Your task to perform on an android device: Open Yahoo.com Image 0: 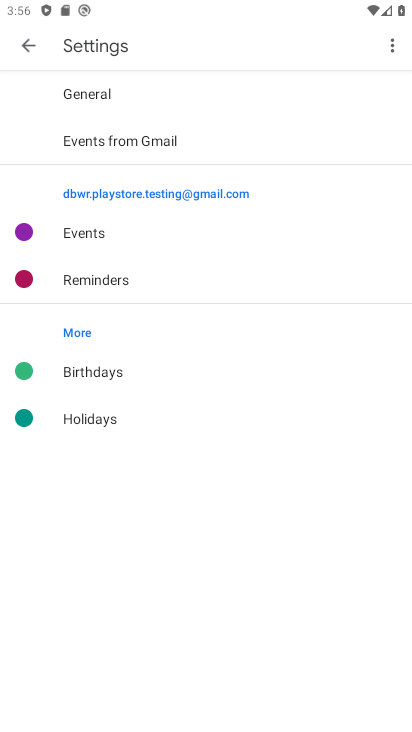
Step 0: press home button
Your task to perform on an android device: Open Yahoo.com Image 1: 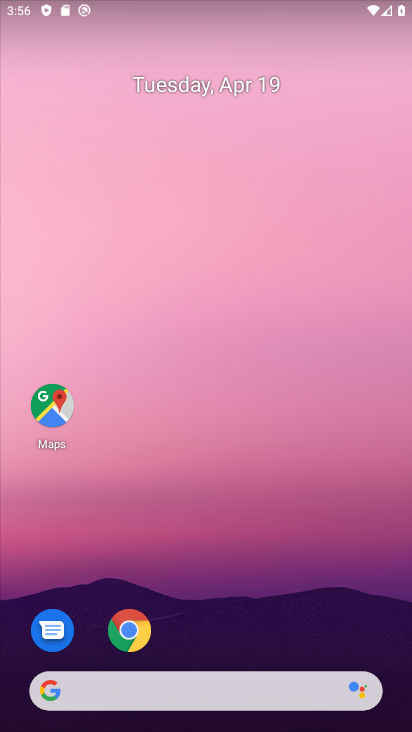
Step 1: click (208, 691)
Your task to perform on an android device: Open Yahoo.com Image 2: 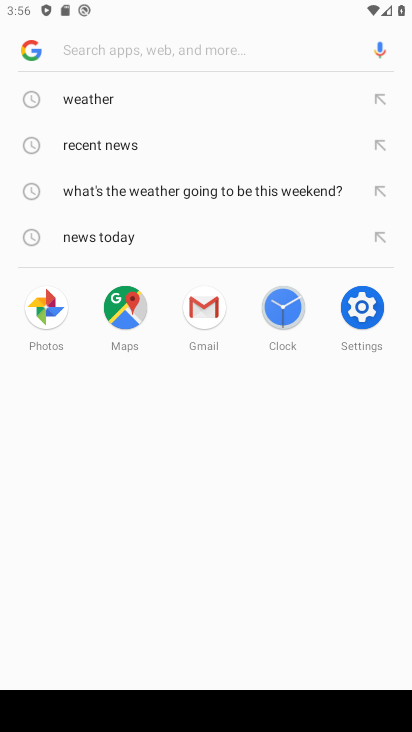
Step 2: click (140, 59)
Your task to perform on an android device: Open Yahoo.com Image 3: 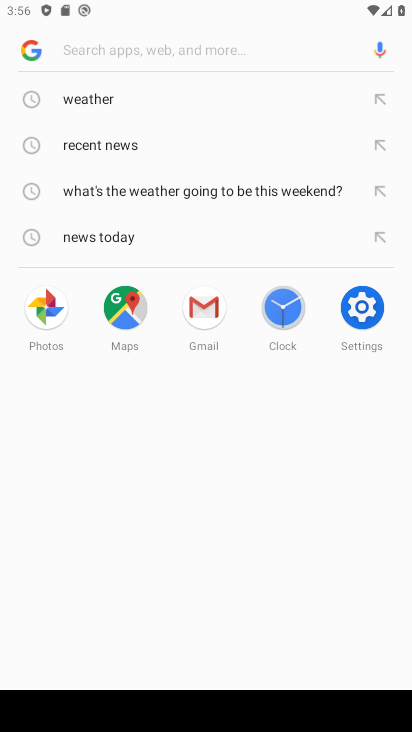
Step 3: type "Yahoo.com"
Your task to perform on an android device: Open Yahoo.com Image 4: 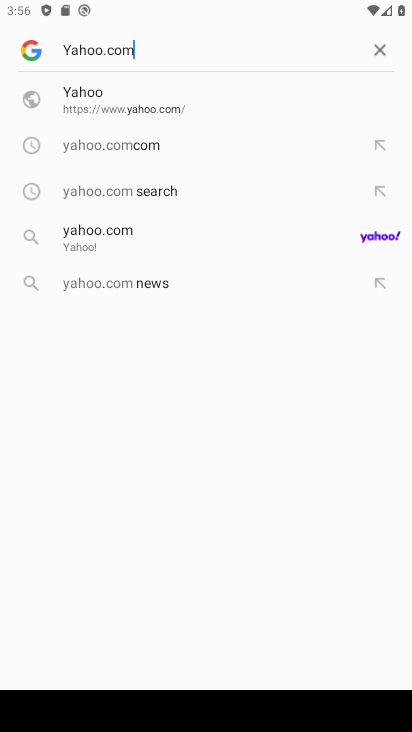
Step 4: click (129, 246)
Your task to perform on an android device: Open Yahoo.com Image 5: 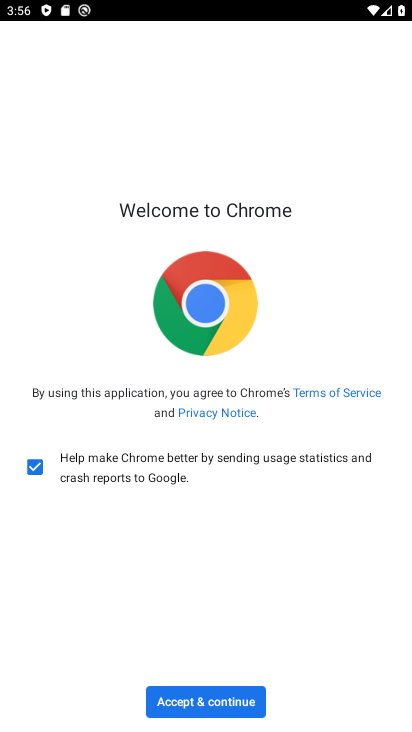
Step 5: click (216, 691)
Your task to perform on an android device: Open Yahoo.com Image 6: 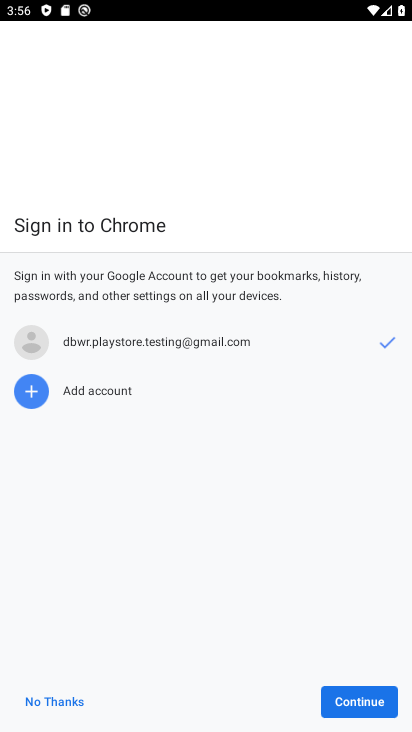
Step 6: click (329, 709)
Your task to perform on an android device: Open Yahoo.com Image 7: 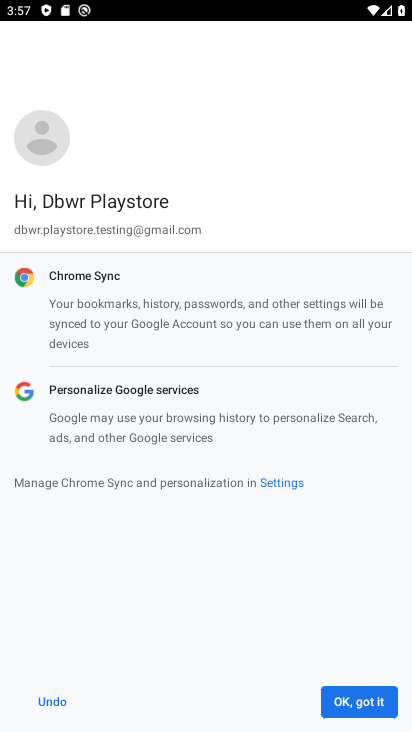
Step 7: click (357, 695)
Your task to perform on an android device: Open Yahoo.com Image 8: 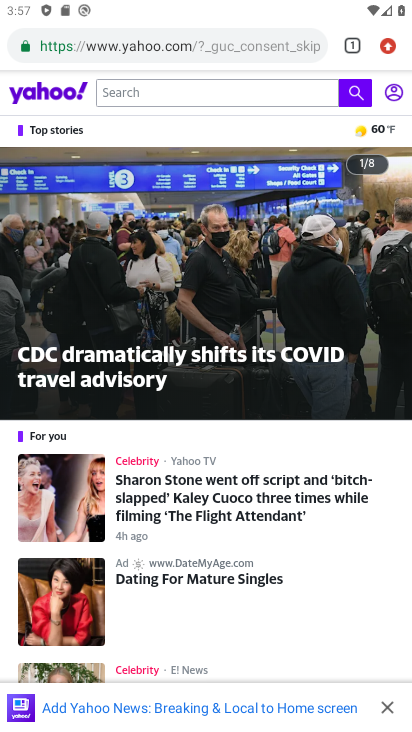
Step 8: task complete